Your task to perform on an android device: turn on javascript in the chrome app Image 0: 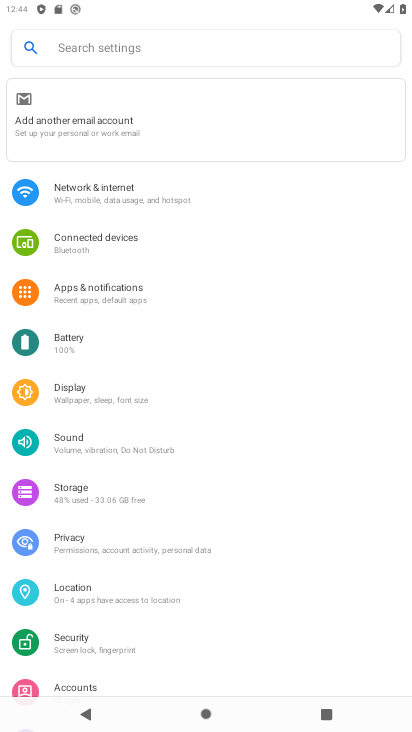
Step 0: press home button
Your task to perform on an android device: turn on javascript in the chrome app Image 1: 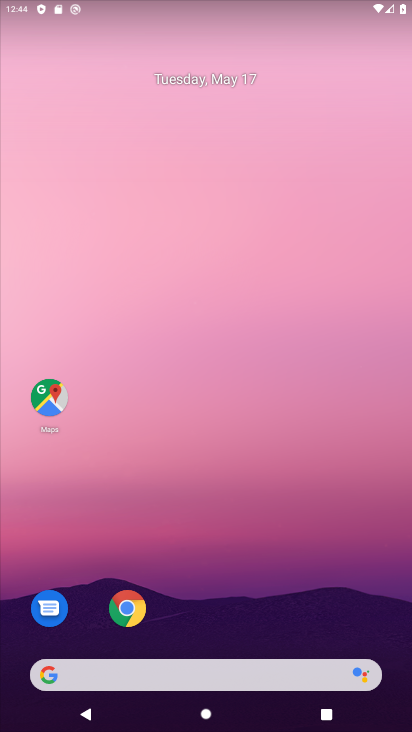
Step 1: click (121, 613)
Your task to perform on an android device: turn on javascript in the chrome app Image 2: 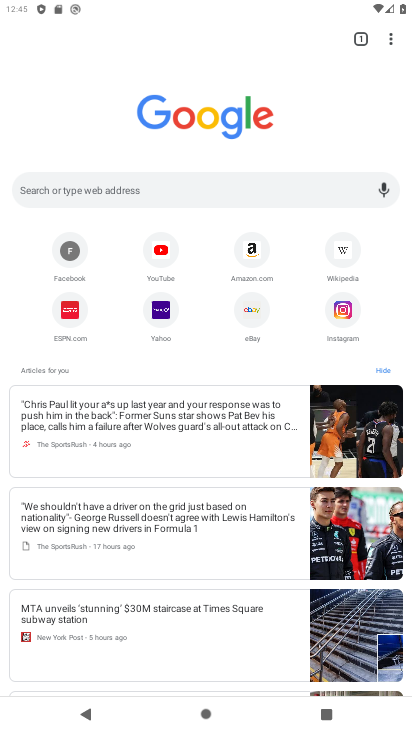
Step 2: click (386, 37)
Your task to perform on an android device: turn on javascript in the chrome app Image 3: 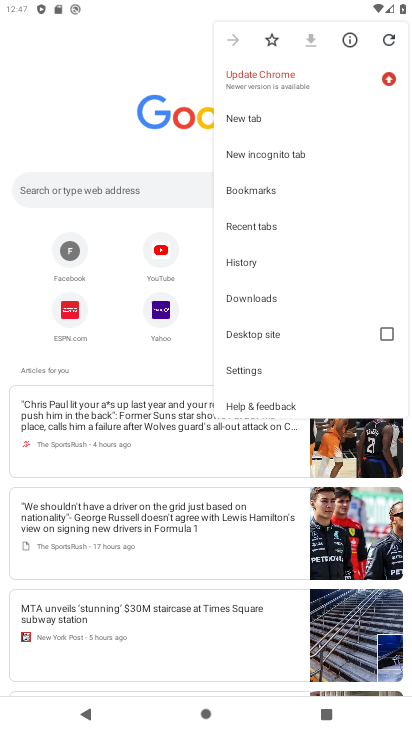
Step 3: click (257, 384)
Your task to perform on an android device: turn on javascript in the chrome app Image 4: 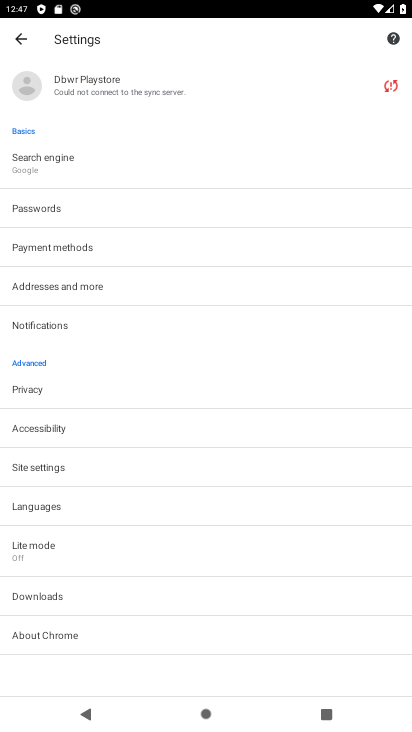
Step 4: click (156, 469)
Your task to perform on an android device: turn on javascript in the chrome app Image 5: 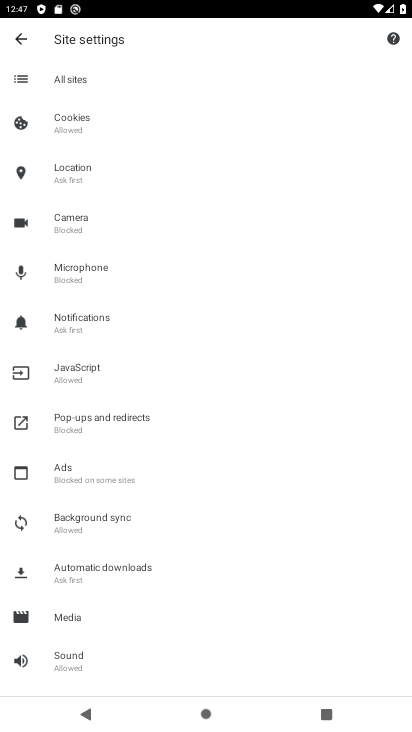
Step 5: click (116, 381)
Your task to perform on an android device: turn on javascript in the chrome app Image 6: 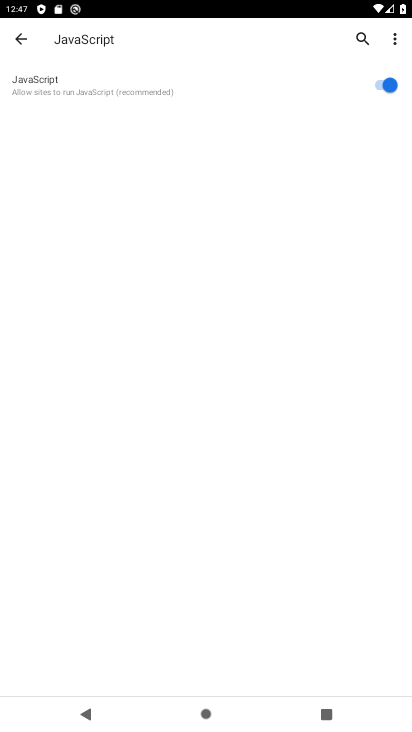
Step 6: task complete